Your task to perform on an android device: Open Amazon Image 0: 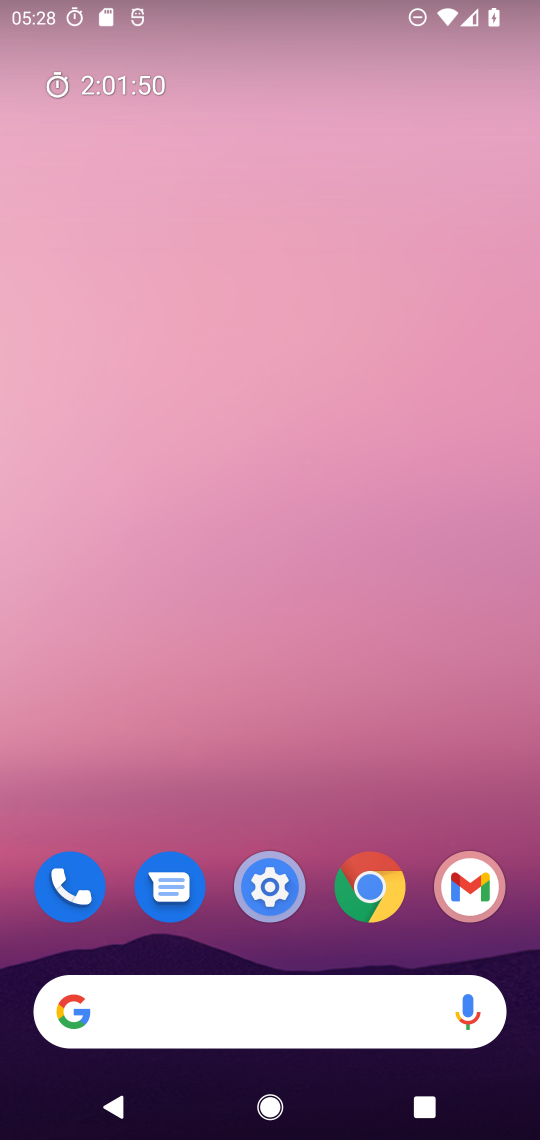
Step 0: press home button
Your task to perform on an android device: Open Amazon Image 1: 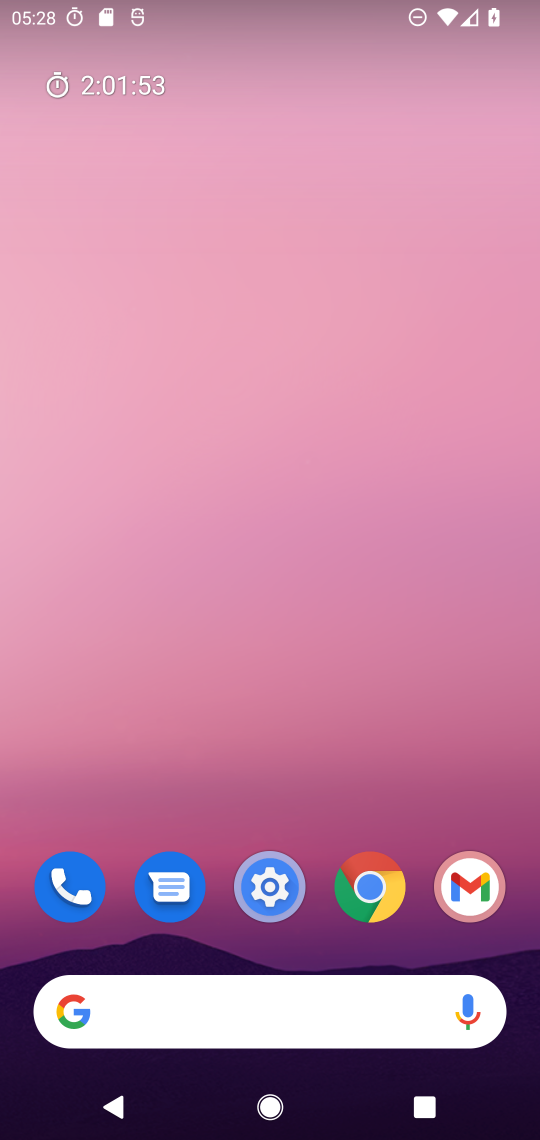
Step 1: drag from (308, 823) to (383, 267)
Your task to perform on an android device: Open Amazon Image 2: 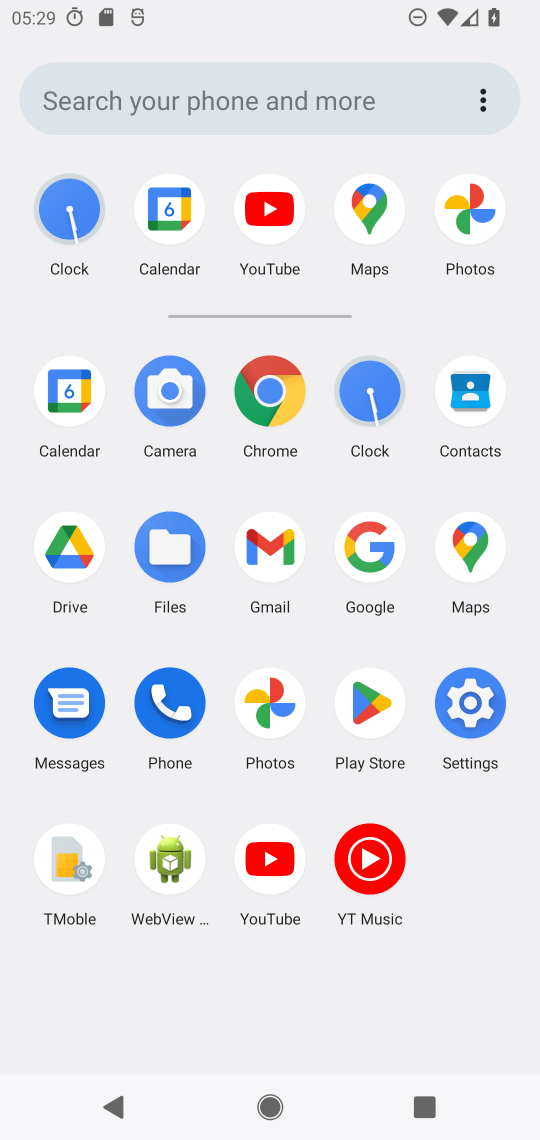
Step 2: click (268, 391)
Your task to perform on an android device: Open Amazon Image 3: 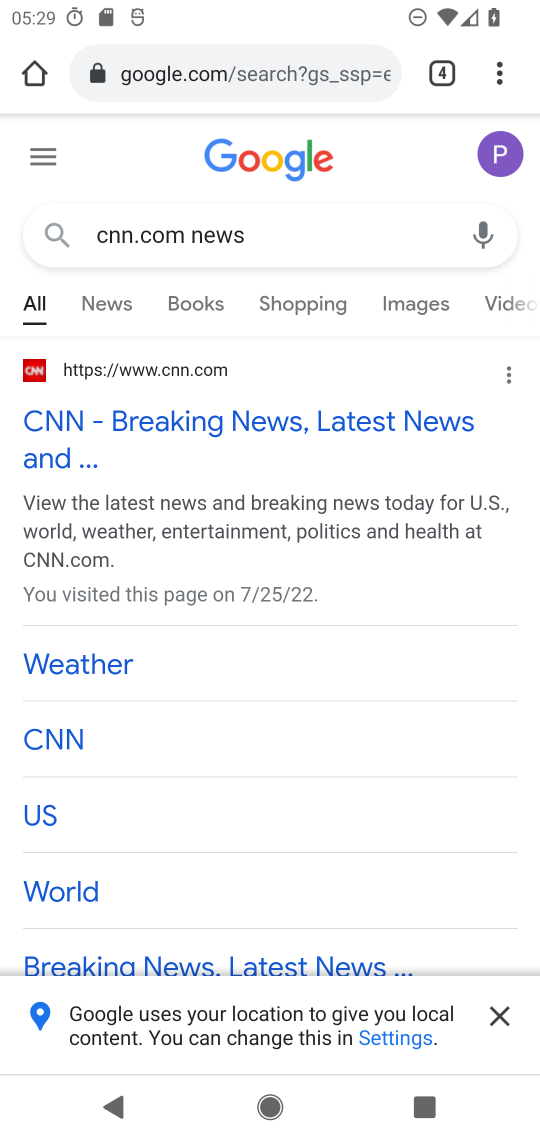
Step 3: click (299, 77)
Your task to perform on an android device: Open Amazon Image 4: 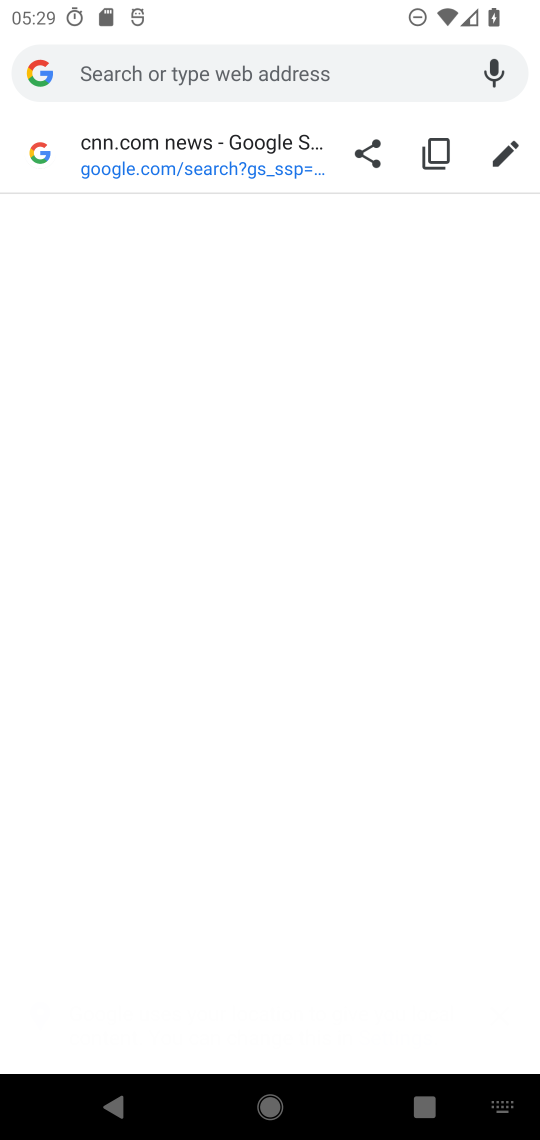
Step 4: type "amazon"
Your task to perform on an android device: Open Amazon Image 5: 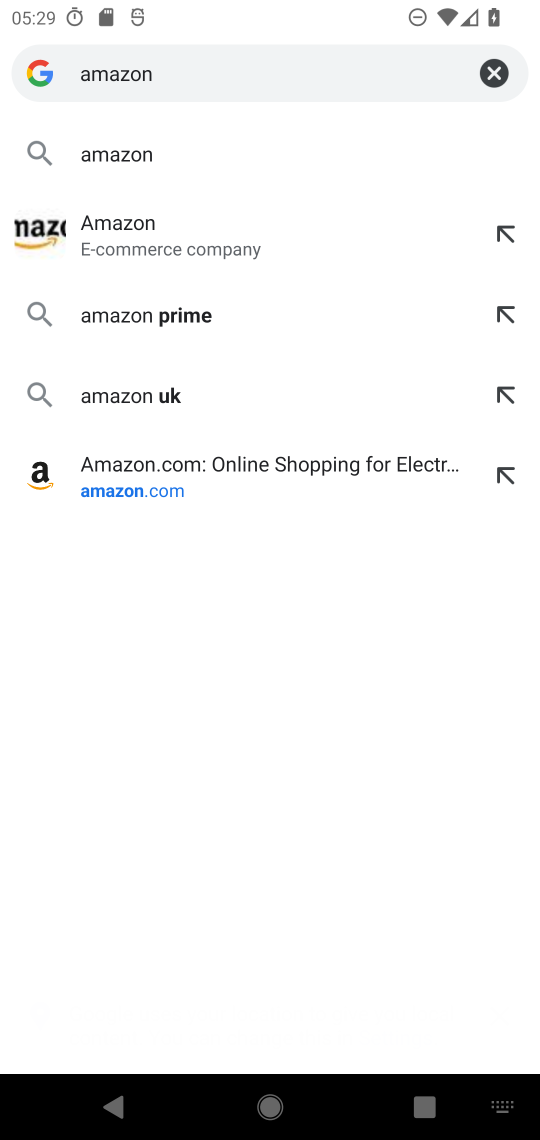
Step 5: click (120, 218)
Your task to perform on an android device: Open Amazon Image 6: 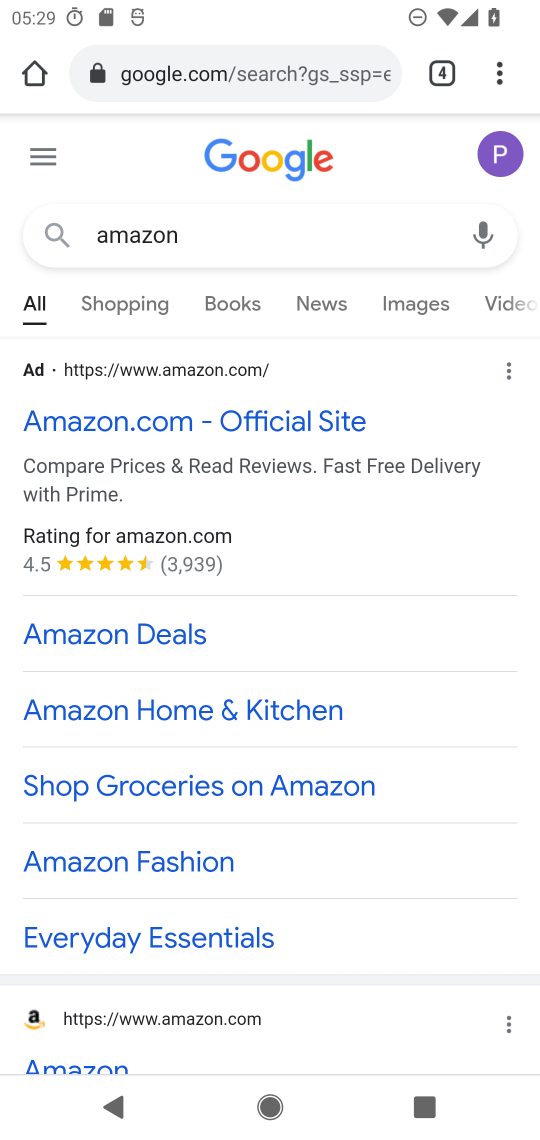
Step 6: task complete